Your task to perform on an android device: change notifications settings Image 0: 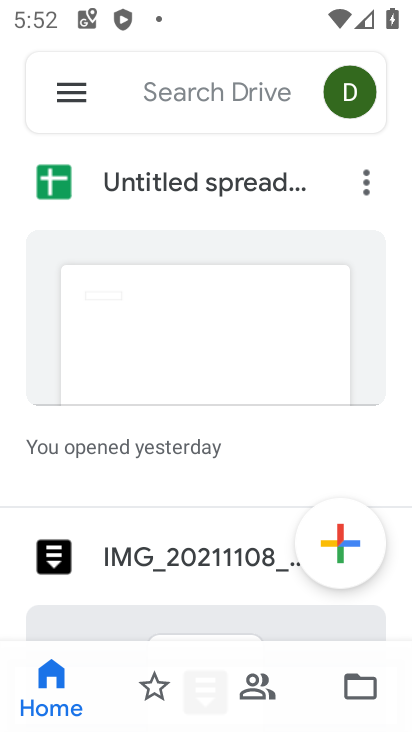
Step 0: press home button
Your task to perform on an android device: change notifications settings Image 1: 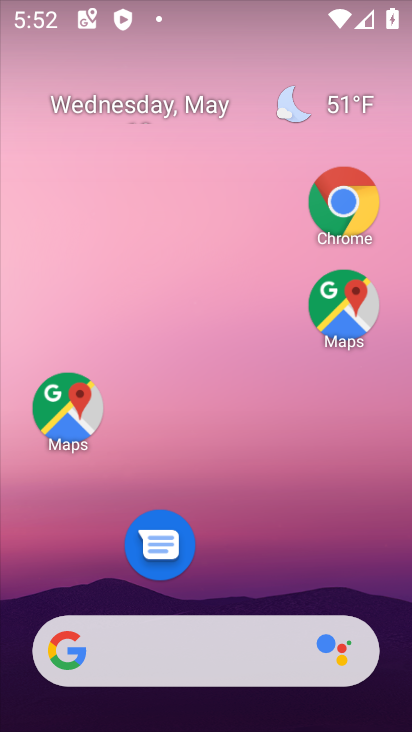
Step 1: drag from (215, 587) to (191, 40)
Your task to perform on an android device: change notifications settings Image 2: 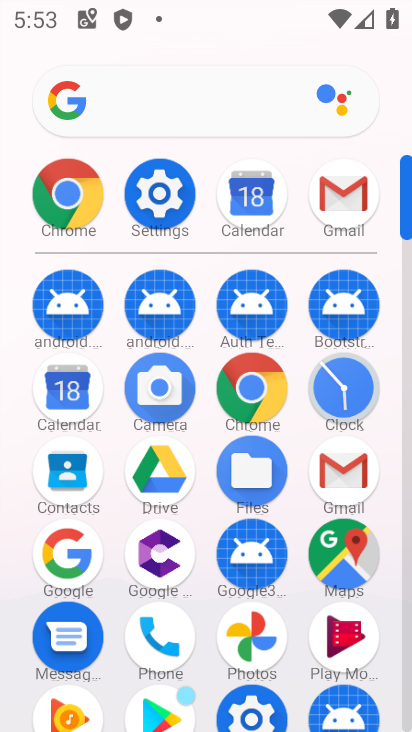
Step 2: click (157, 201)
Your task to perform on an android device: change notifications settings Image 3: 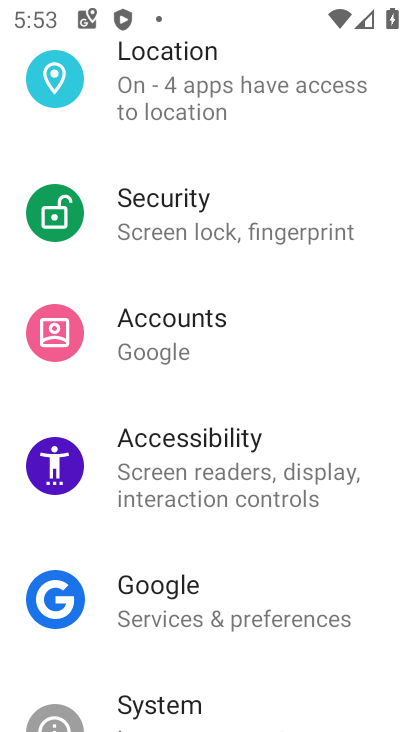
Step 3: drag from (156, 189) to (126, 461)
Your task to perform on an android device: change notifications settings Image 4: 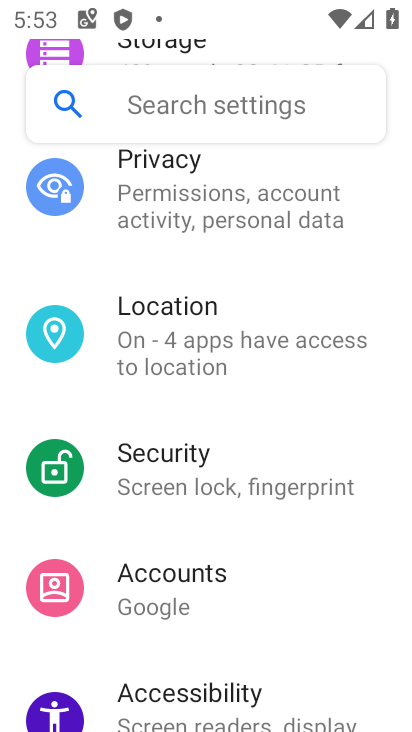
Step 4: drag from (190, 245) to (190, 535)
Your task to perform on an android device: change notifications settings Image 5: 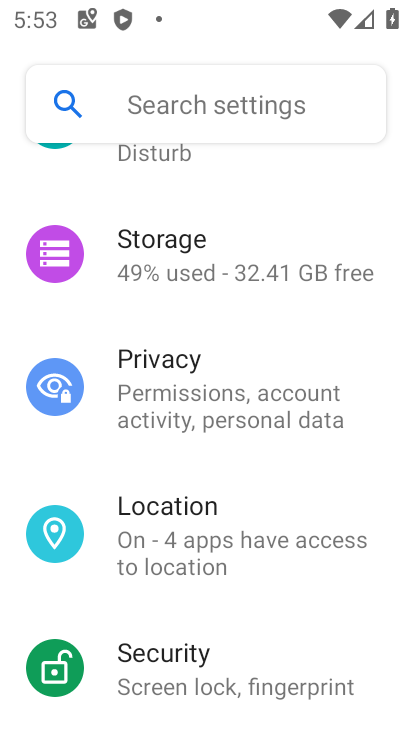
Step 5: drag from (219, 275) to (215, 549)
Your task to perform on an android device: change notifications settings Image 6: 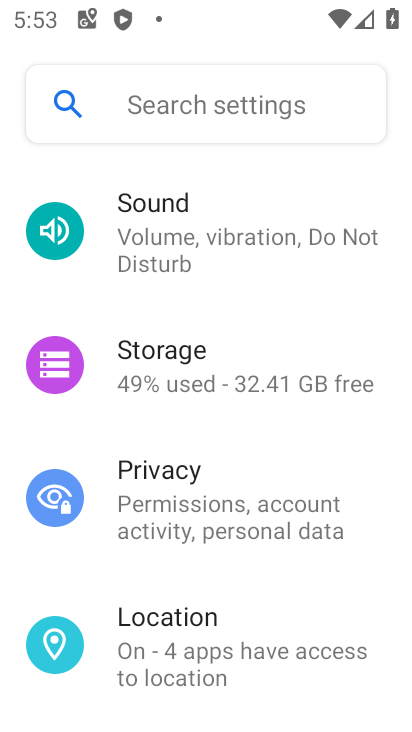
Step 6: drag from (227, 306) to (192, 518)
Your task to perform on an android device: change notifications settings Image 7: 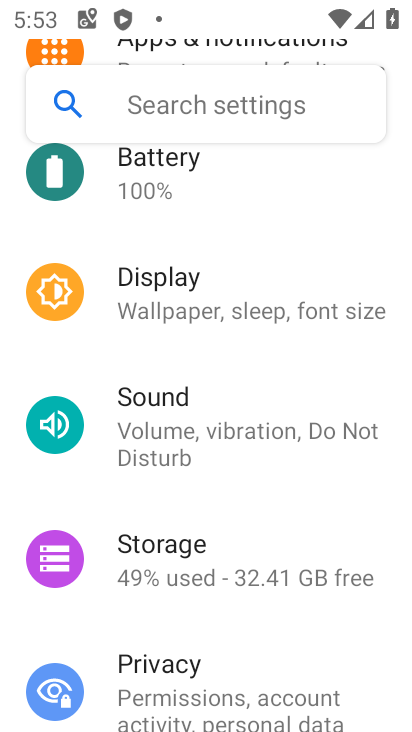
Step 7: drag from (191, 254) to (182, 509)
Your task to perform on an android device: change notifications settings Image 8: 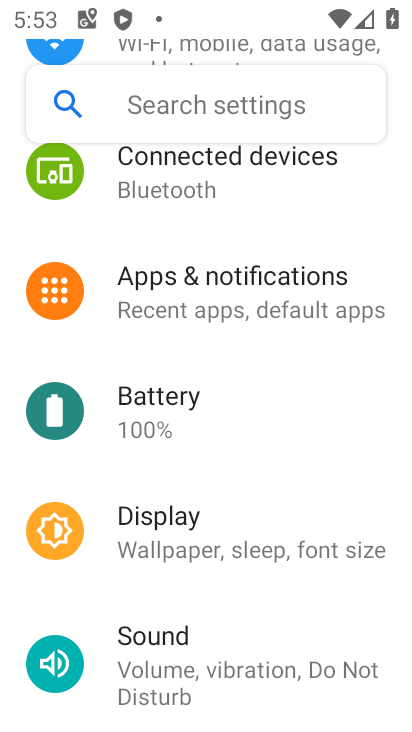
Step 8: click (179, 294)
Your task to perform on an android device: change notifications settings Image 9: 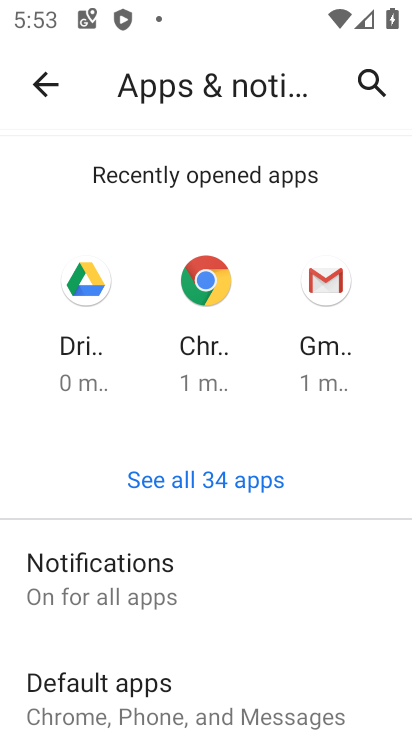
Step 9: click (96, 567)
Your task to perform on an android device: change notifications settings Image 10: 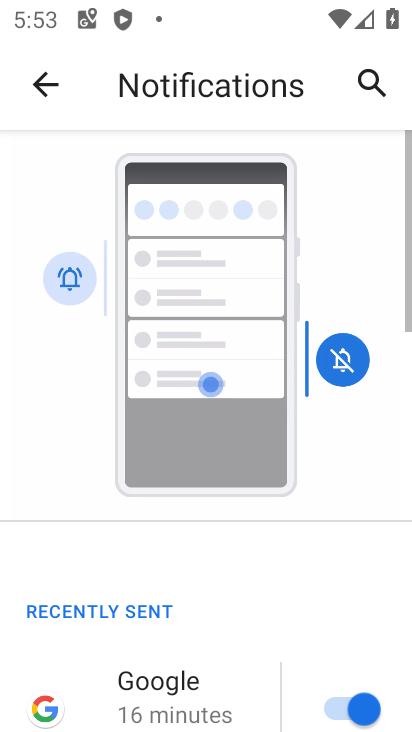
Step 10: drag from (182, 671) to (222, 140)
Your task to perform on an android device: change notifications settings Image 11: 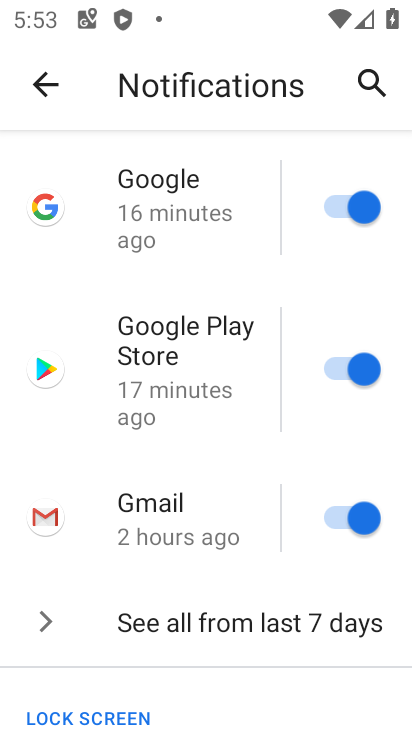
Step 11: drag from (223, 197) to (231, 138)
Your task to perform on an android device: change notifications settings Image 12: 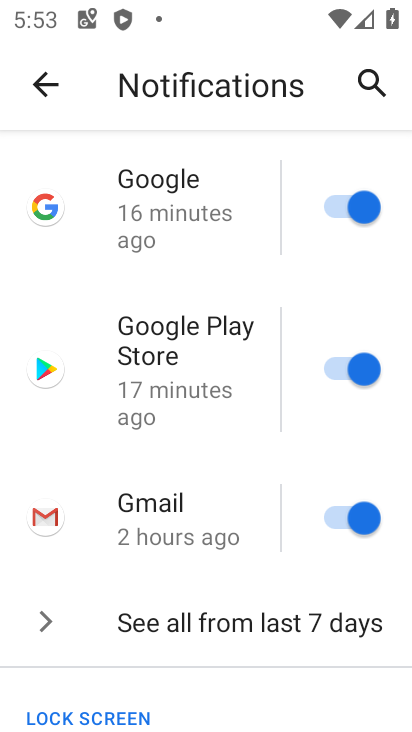
Step 12: drag from (161, 691) to (197, 333)
Your task to perform on an android device: change notifications settings Image 13: 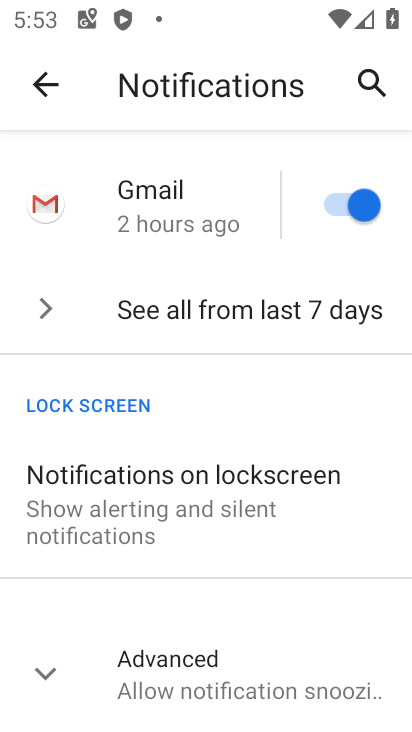
Step 13: click (132, 507)
Your task to perform on an android device: change notifications settings Image 14: 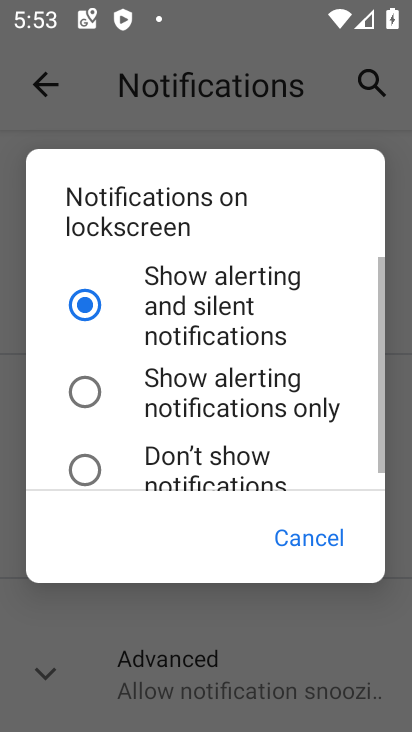
Step 14: click (95, 462)
Your task to perform on an android device: change notifications settings Image 15: 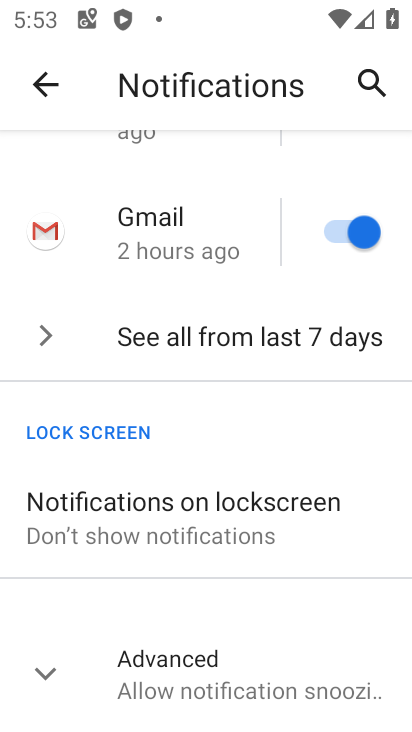
Step 15: task complete